Your task to perform on an android device: Open Chrome and go to the settings page Image 0: 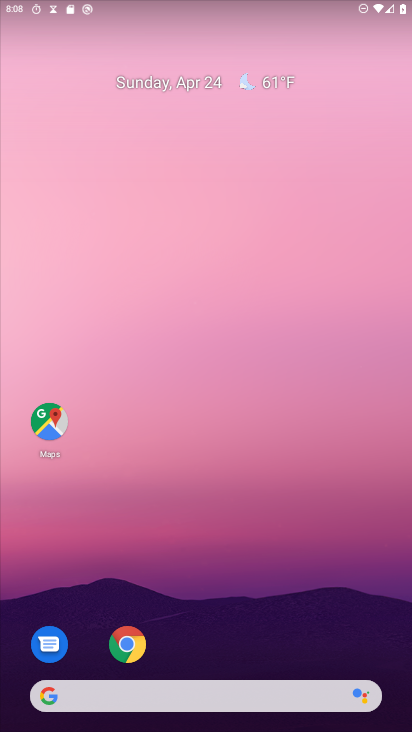
Step 0: click (121, 655)
Your task to perform on an android device: Open Chrome and go to the settings page Image 1: 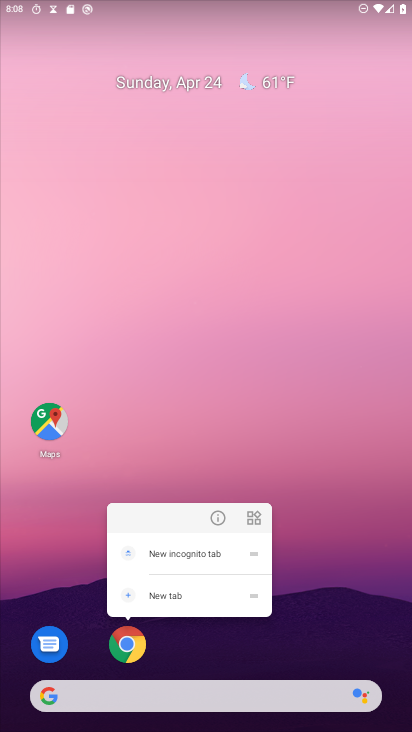
Step 1: click (121, 655)
Your task to perform on an android device: Open Chrome and go to the settings page Image 2: 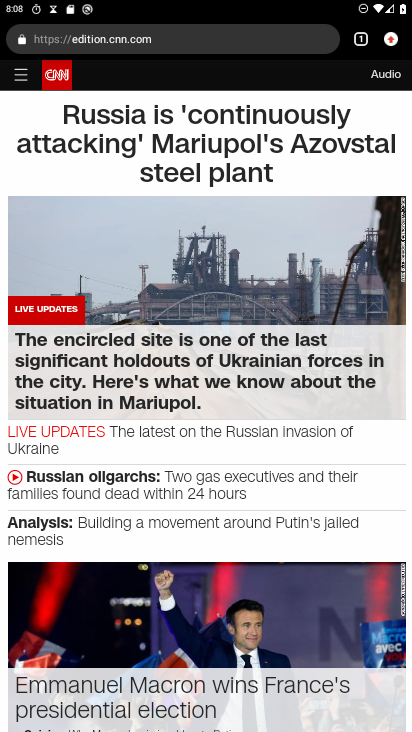
Step 2: press home button
Your task to perform on an android device: Open Chrome and go to the settings page Image 3: 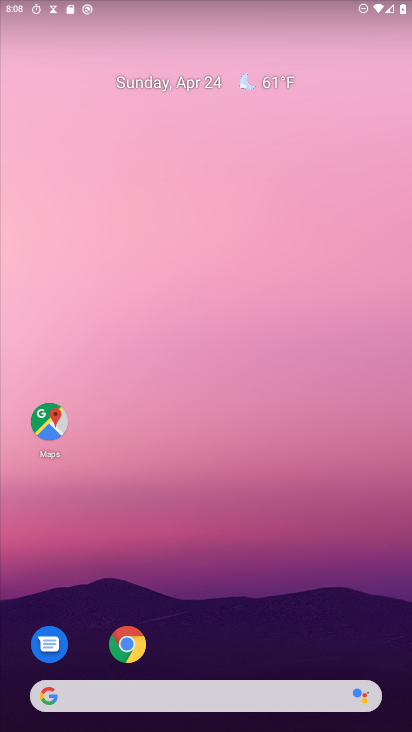
Step 3: click (108, 649)
Your task to perform on an android device: Open Chrome and go to the settings page Image 4: 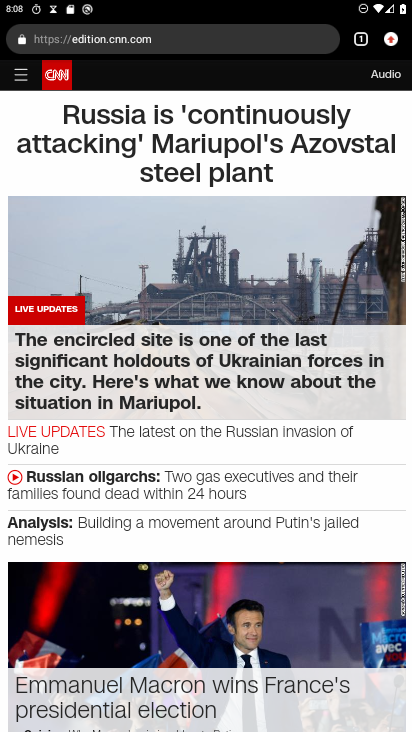
Step 4: task complete